Your task to perform on an android device: turn on airplane mode Image 0: 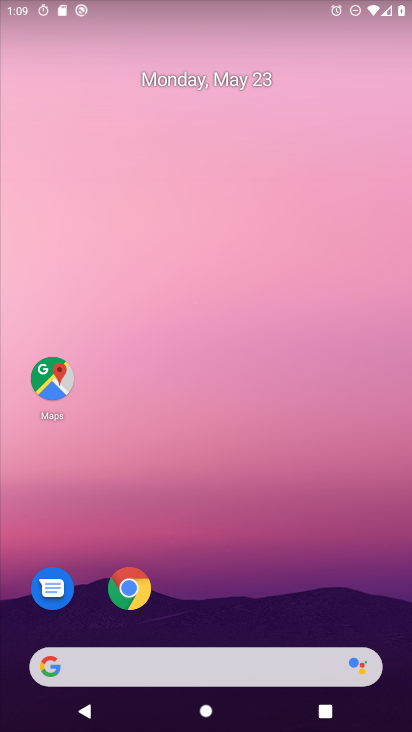
Step 0: press home button
Your task to perform on an android device: turn on airplane mode Image 1: 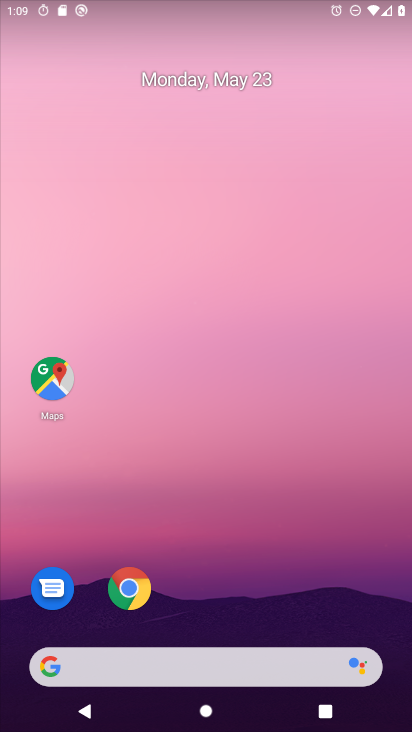
Step 1: drag from (235, 705) to (161, 190)
Your task to perform on an android device: turn on airplane mode Image 2: 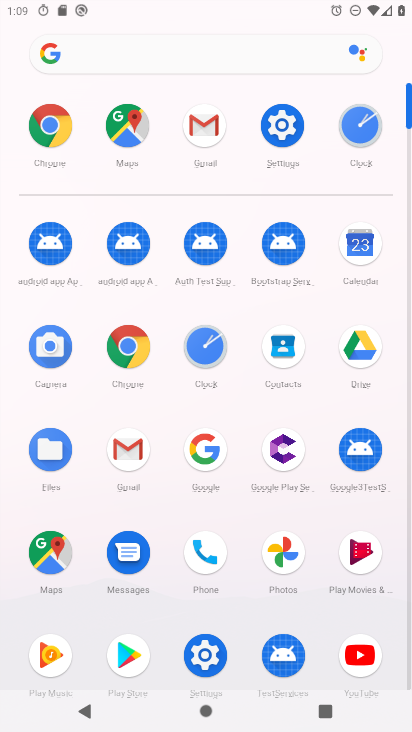
Step 2: click (291, 117)
Your task to perform on an android device: turn on airplane mode Image 3: 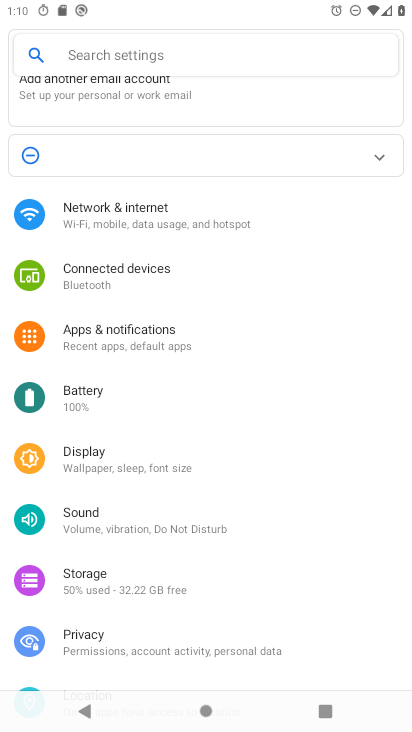
Step 3: click (133, 219)
Your task to perform on an android device: turn on airplane mode Image 4: 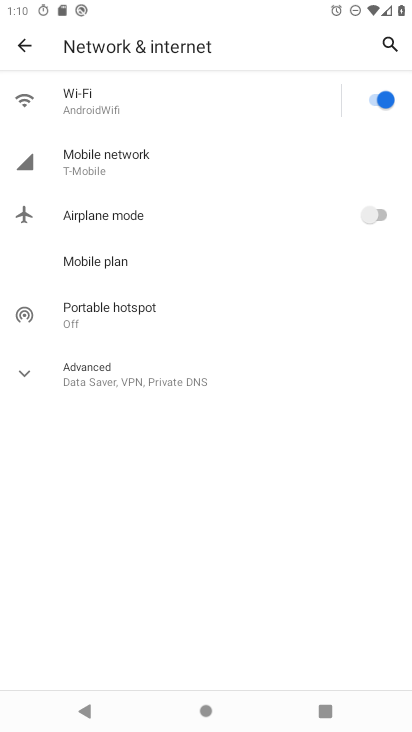
Step 4: click (331, 229)
Your task to perform on an android device: turn on airplane mode Image 5: 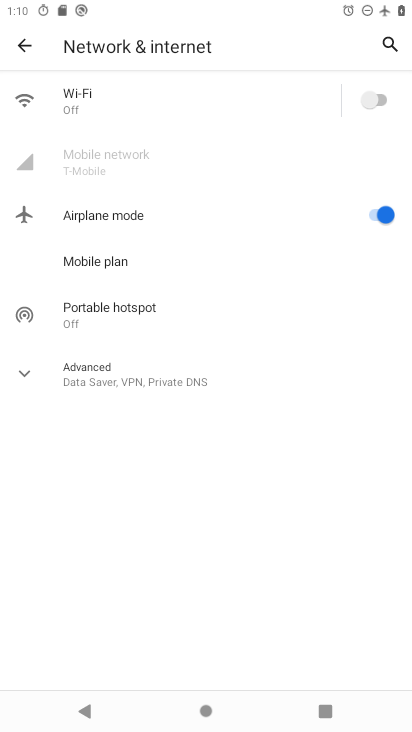
Step 5: task complete